Your task to perform on an android device: Go to battery settings Image 0: 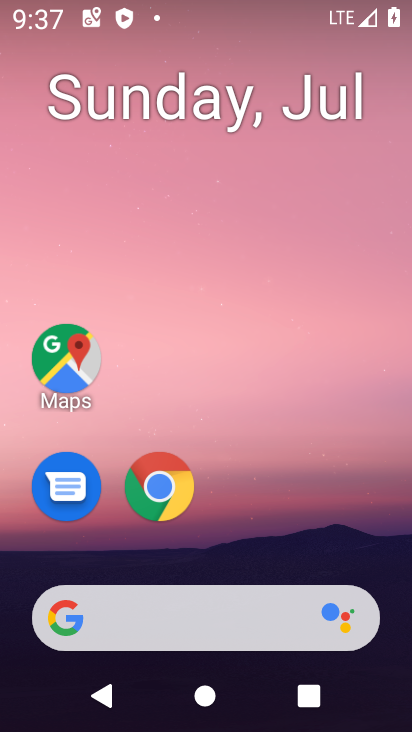
Step 0: drag from (382, 550) to (354, 70)
Your task to perform on an android device: Go to battery settings Image 1: 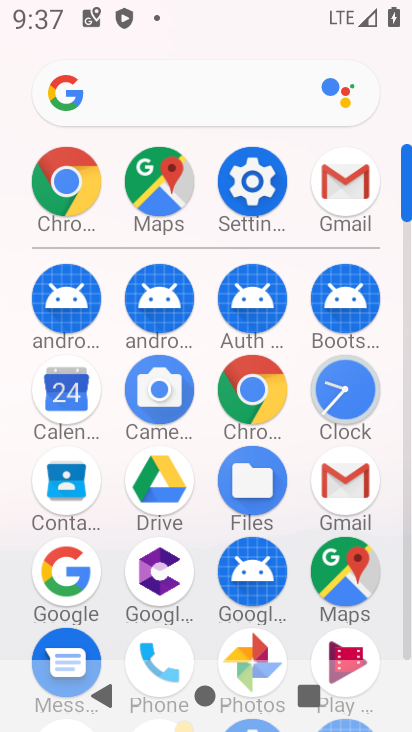
Step 1: click (260, 181)
Your task to perform on an android device: Go to battery settings Image 2: 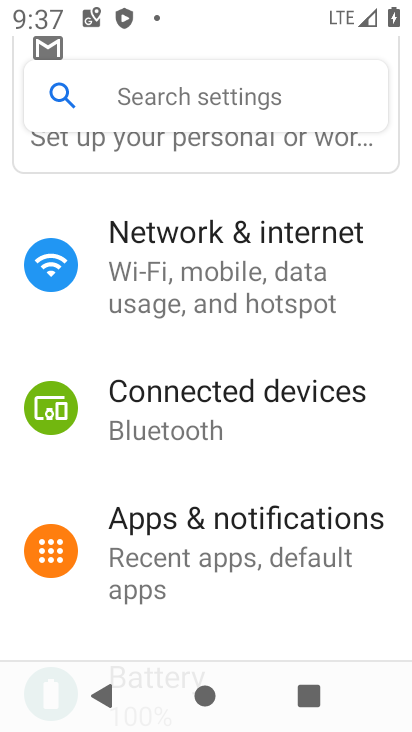
Step 2: drag from (376, 293) to (389, 437)
Your task to perform on an android device: Go to battery settings Image 3: 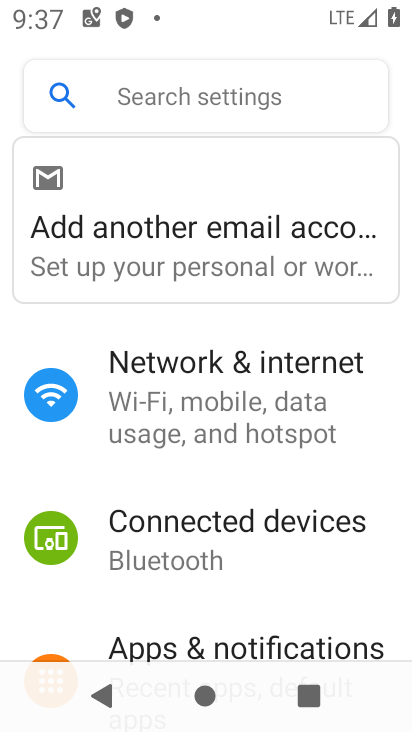
Step 3: drag from (382, 321) to (379, 519)
Your task to perform on an android device: Go to battery settings Image 4: 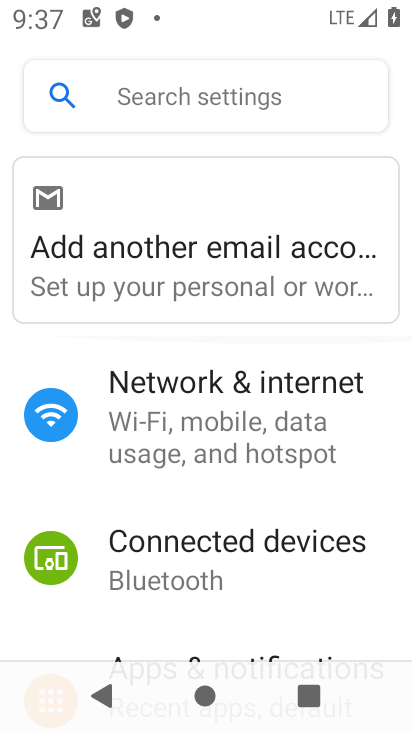
Step 4: drag from (383, 511) to (389, 402)
Your task to perform on an android device: Go to battery settings Image 5: 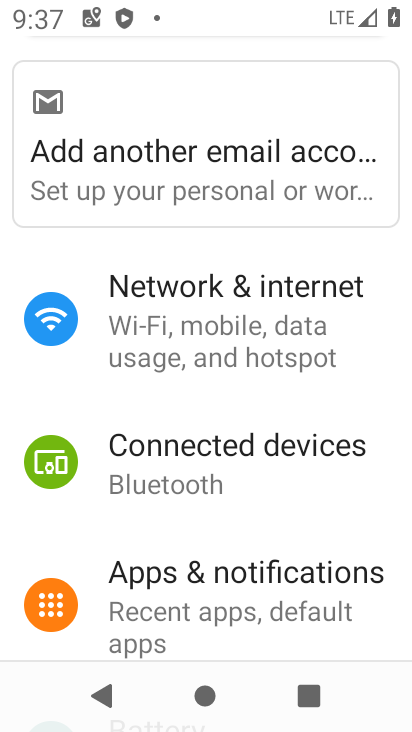
Step 5: drag from (379, 530) to (382, 425)
Your task to perform on an android device: Go to battery settings Image 6: 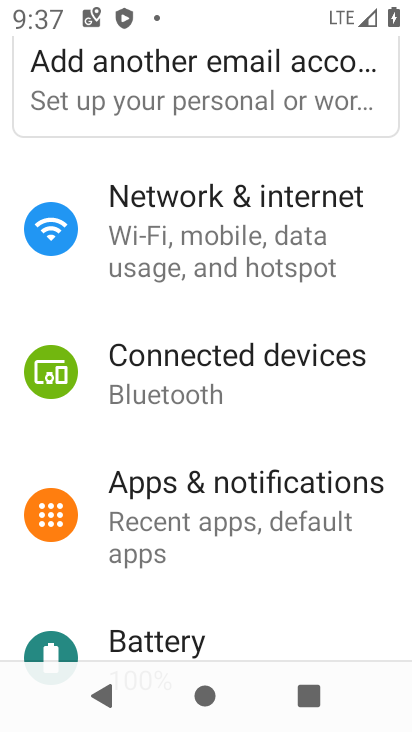
Step 6: drag from (364, 588) to (372, 457)
Your task to perform on an android device: Go to battery settings Image 7: 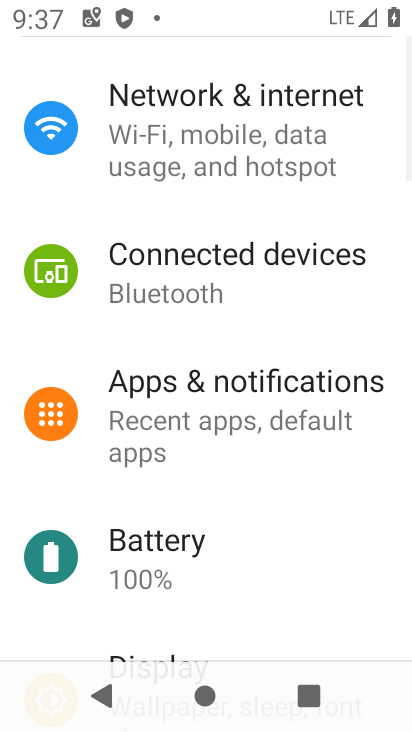
Step 7: drag from (368, 533) to (368, 379)
Your task to perform on an android device: Go to battery settings Image 8: 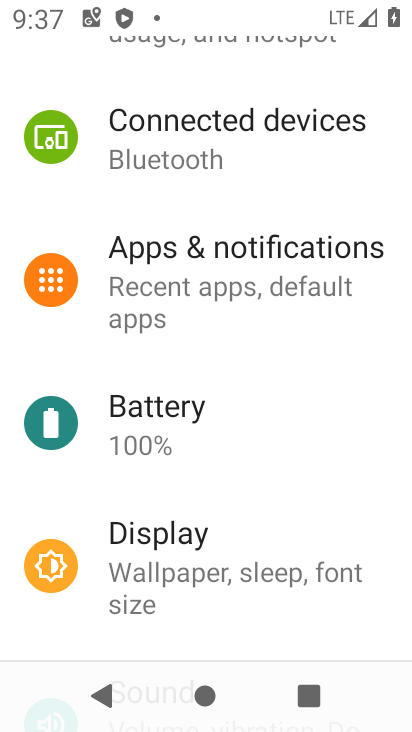
Step 8: drag from (374, 470) to (367, 336)
Your task to perform on an android device: Go to battery settings Image 9: 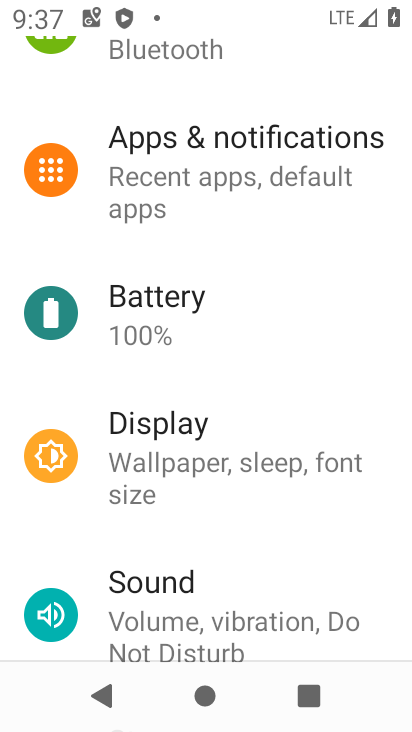
Step 9: click (254, 341)
Your task to perform on an android device: Go to battery settings Image 10: 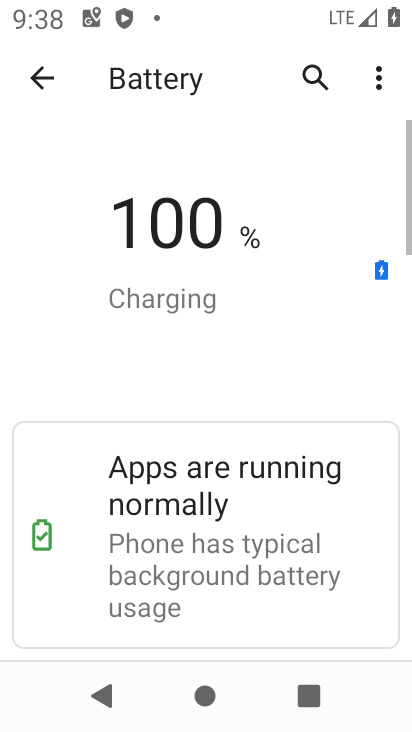
Step 10: task complete